Your task to perform on an android device: open chrome privacy settings Image 0: 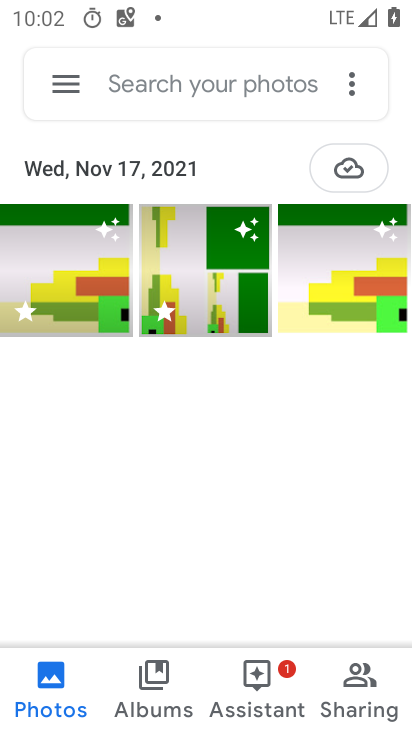
Step 0: press home button
Your task to perform on an android device: open chrome privacy settings Image 1: 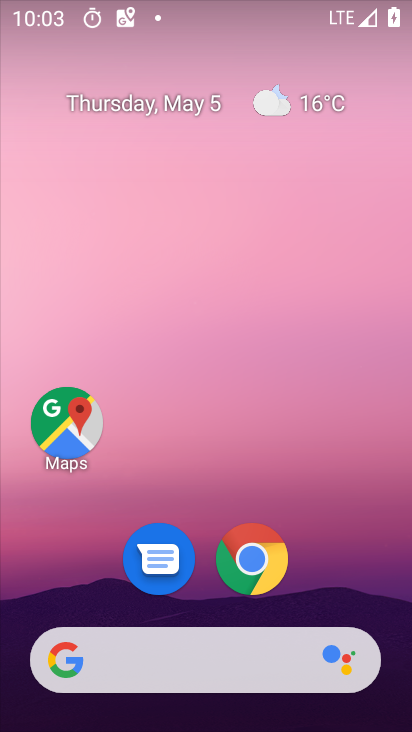
Step 1: click (266, 561)
Your task to perform on an android device: open chrome privacy settings Image 2: 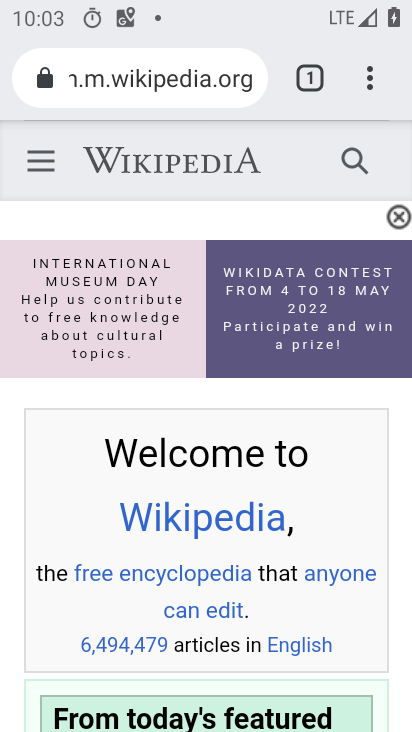
Step 2: click (379, 89)
Your task to perform on an android device: open chrome privacy settings Image 3: 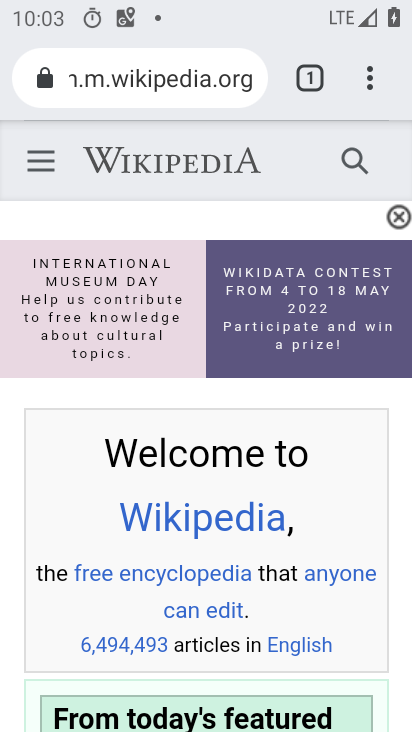
Step 3: click (369, 100)
Your task to perform on an android device: open chrome privacy settings Image 4: 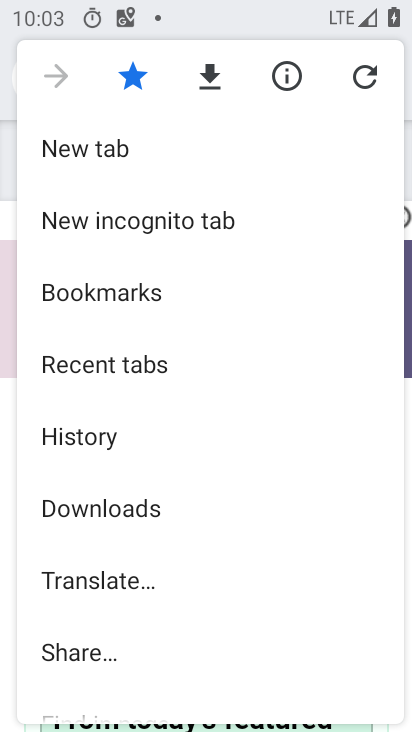
Step 4: drag from (120, 594) to (141, 237)
Your task to perform on an android device: open chrome privacy settings Image 5: 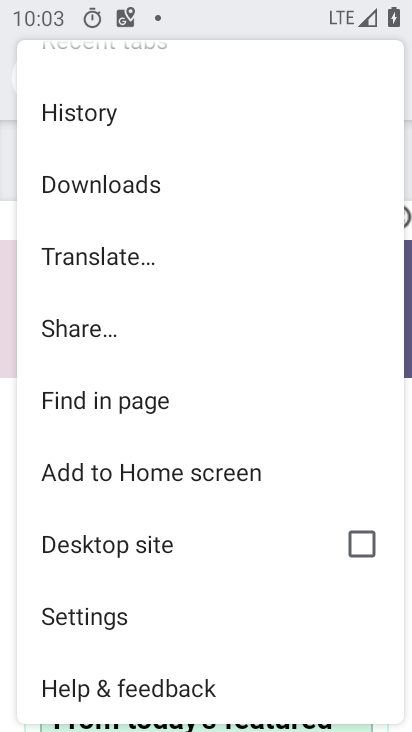
Step 5: click (116, 622)
Your task to perform on an android device: open chrome privacy settings Image 6: 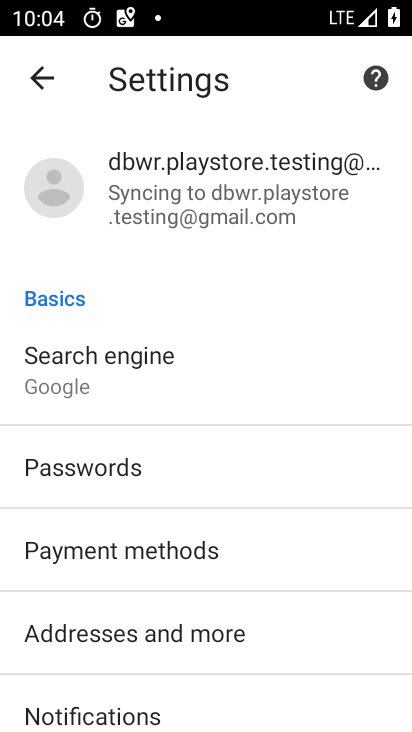
Step 6: drag from (212, 643) to (226, 381)
Your task to perform on an android device: open chrome privacy settings Image 7: 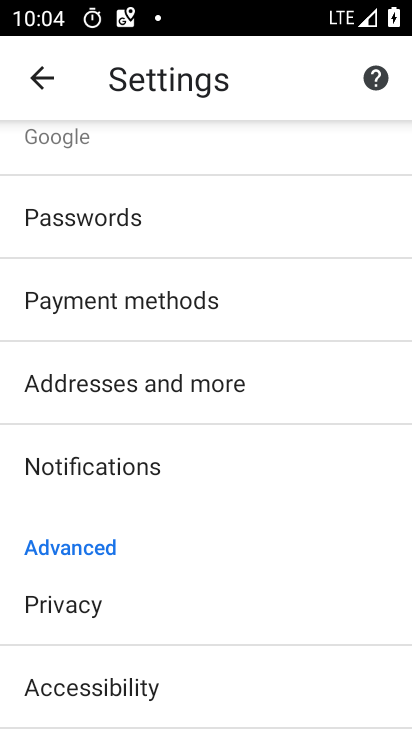
Step 7: click (88, 604)
Your task to perform on an android device: open chrome privacy settings Image 8: 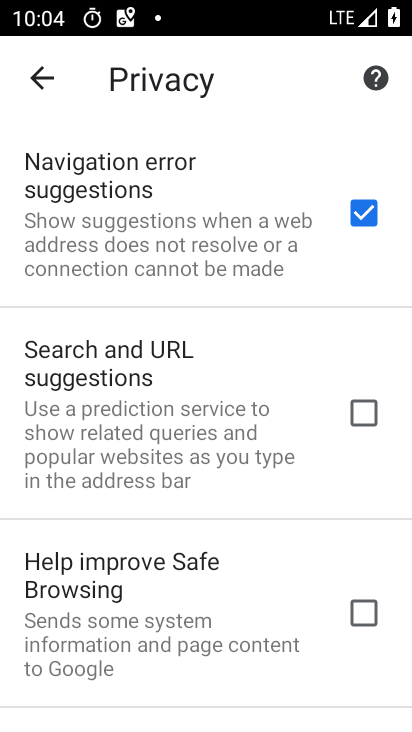
Step 8: task complete